Your task to perform on an android device: turn off sleep mode Image 0: 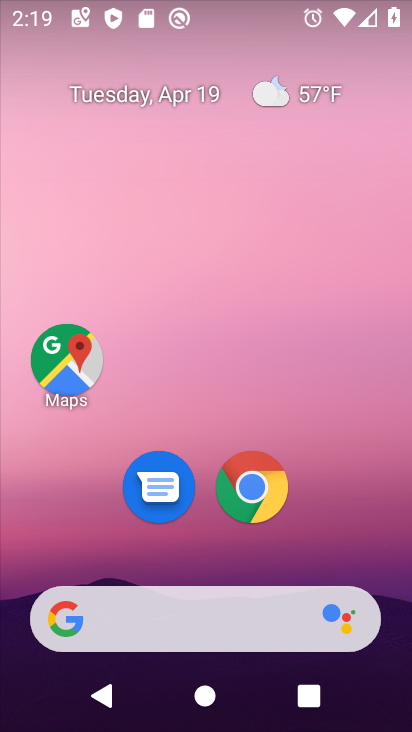
Step 0: drag from (248, 13) to (237, 724)
Your task to perform on an android device: turn off sleep mode Image 1: 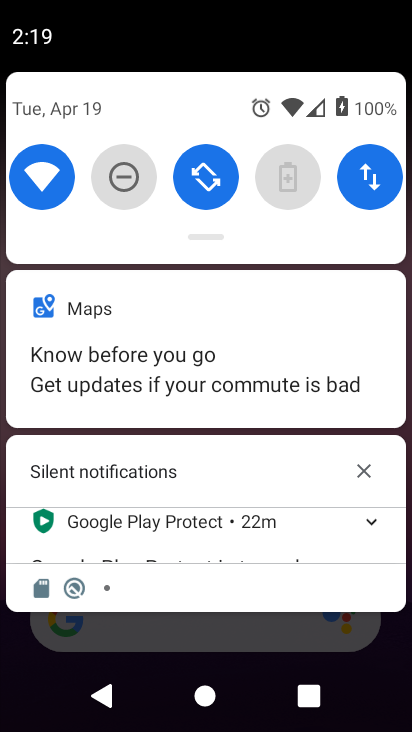
Step 1: drag from (272, 81) to (229, 663)
Your task to perform on an android device: turn off sleep mode Image 2: 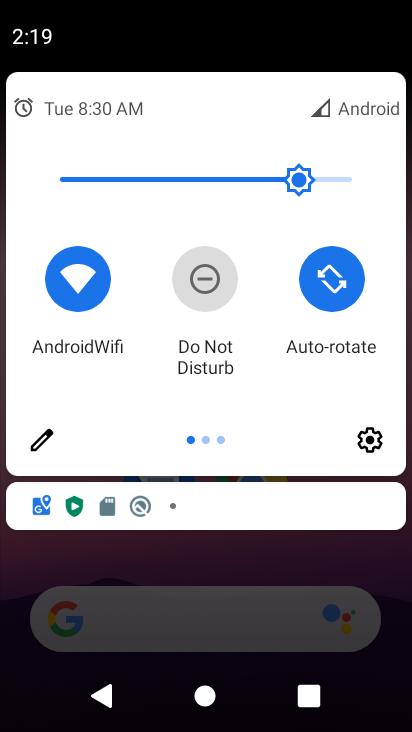
Step 2: click (361, 437)
Your task to perform on an android device: turn off sleep mode Image 3: 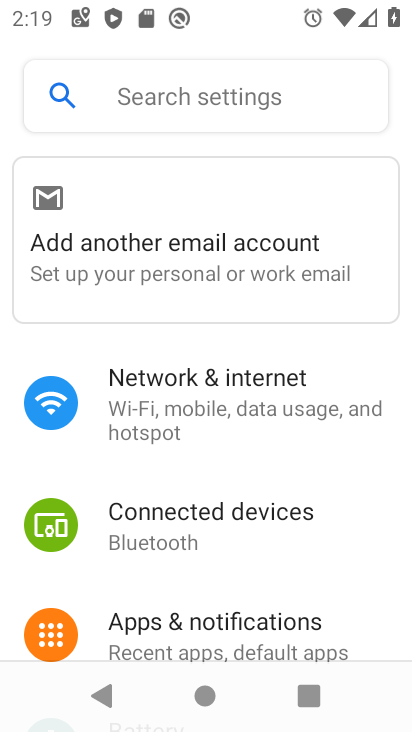
Step 3: task complete